Your task to perform on an android device: Open the map Image 0: 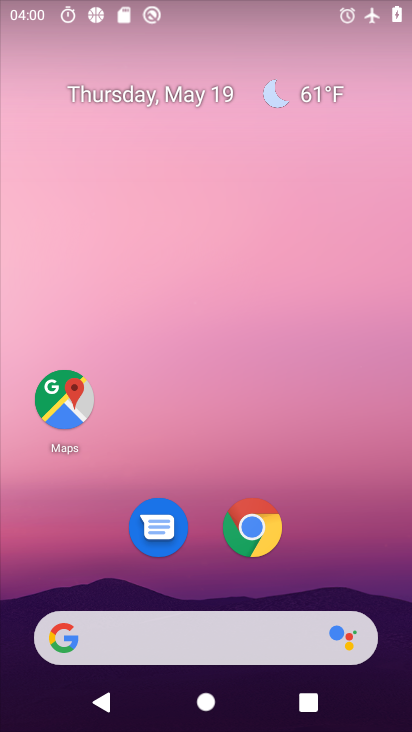
Step 0: click (46, 388)
Your task to perform on an android device: Open the map Image 1: 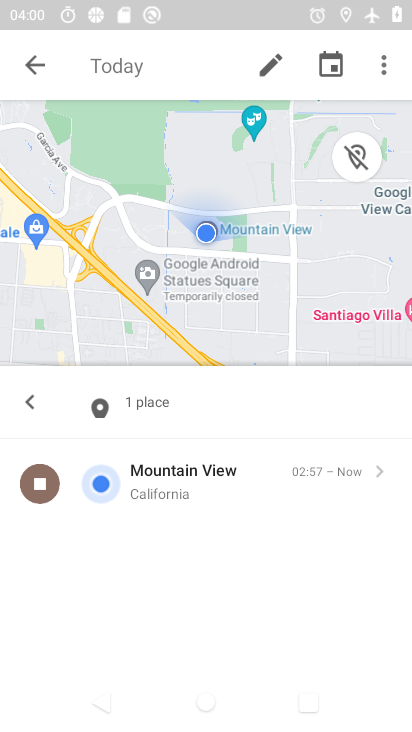
Step 1: task complete